Your task to perform on an android device: Go to sound settings Image 0: 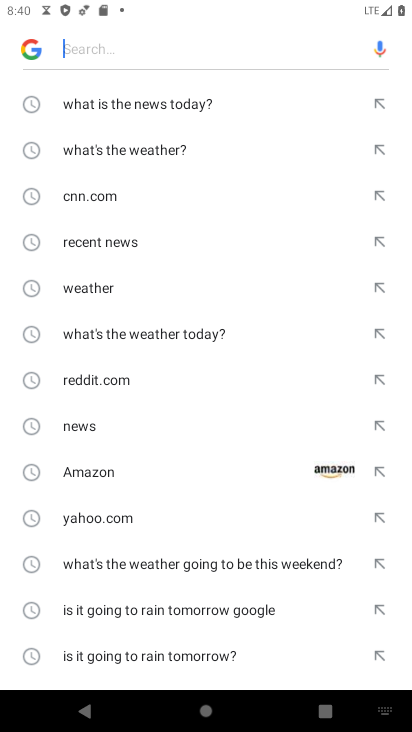
Step 0: press home button
Your task to perform on an android device: Go to sound settings Image 1: 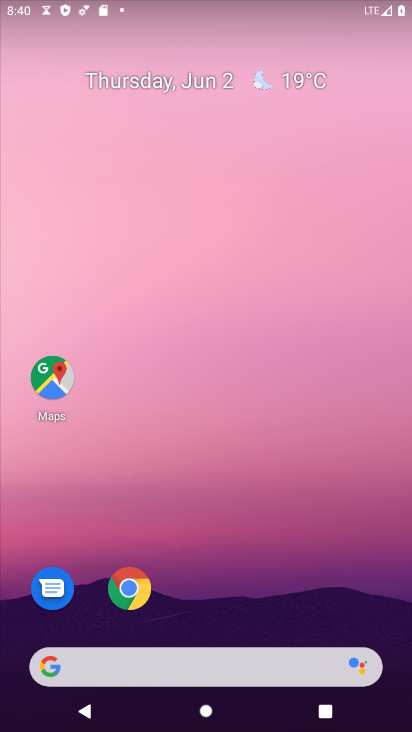
Step 1: drag from (205, 572) to (294, 17)
Your task to perform on an android device: Go to sound settings Image 2: 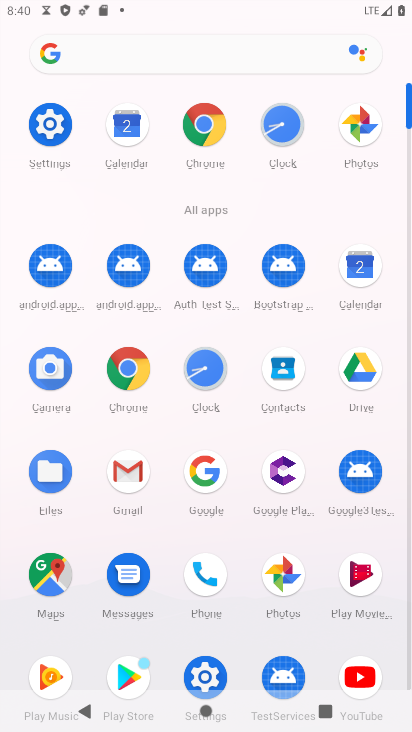
Step 2: drag from (29, 114) to (103, 114)
Your task to perform on an android device: Go to sound settings Image 3: 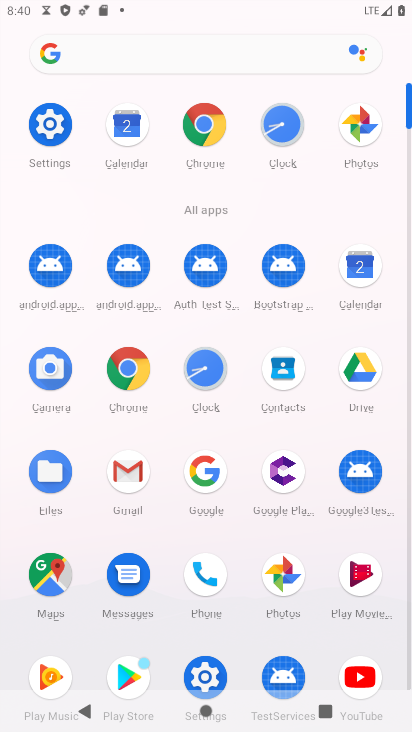
Step 3: click (50, 134)
Your task to perform on an android device: Go to sound settings Image 4: 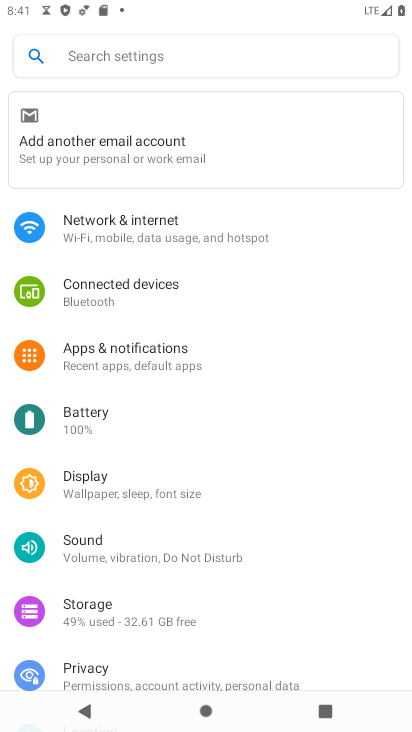
Step 4: click (81, 540)
Your task to perform on an android device: Go to sound settings Image 5: 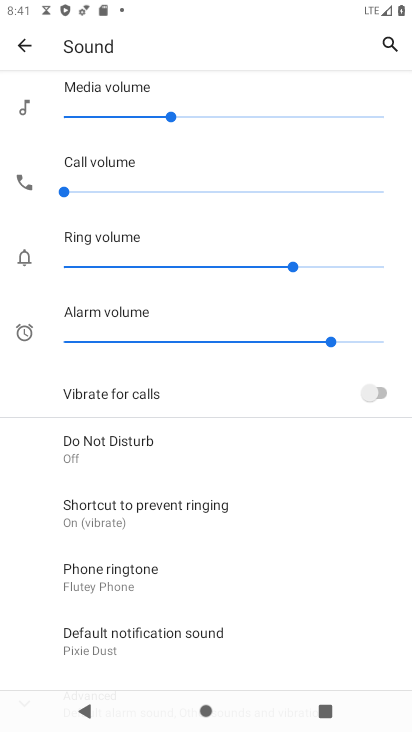
Step 5: task complete